Your task to perform on an android device: Search for "jbl charge 4" on walmart.com, select the first entry, and add it to the cart. Image 0: 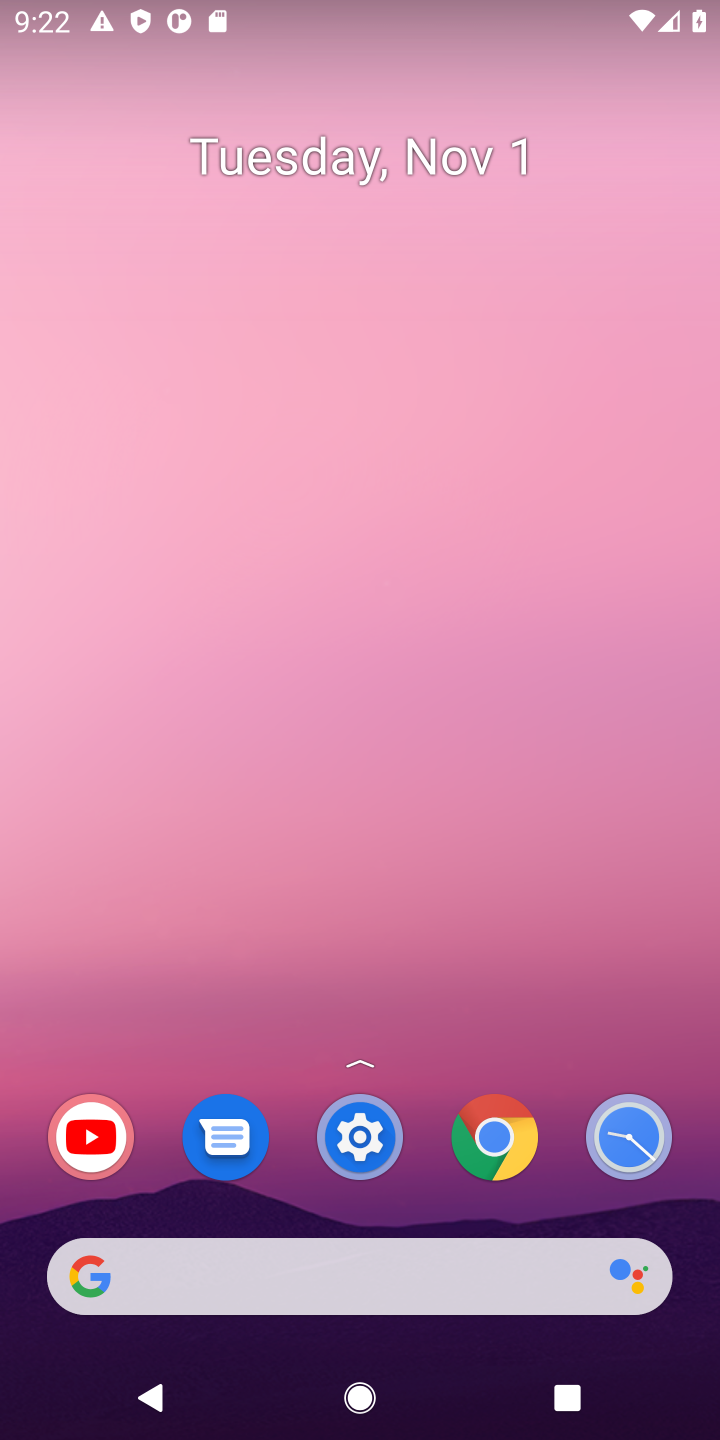
Step 0: click (492, 1153)
Your task to perform on an android device: Search for "jbl charge 4" on walmart.com, select the first entry, and add it to the cart. Image 1: 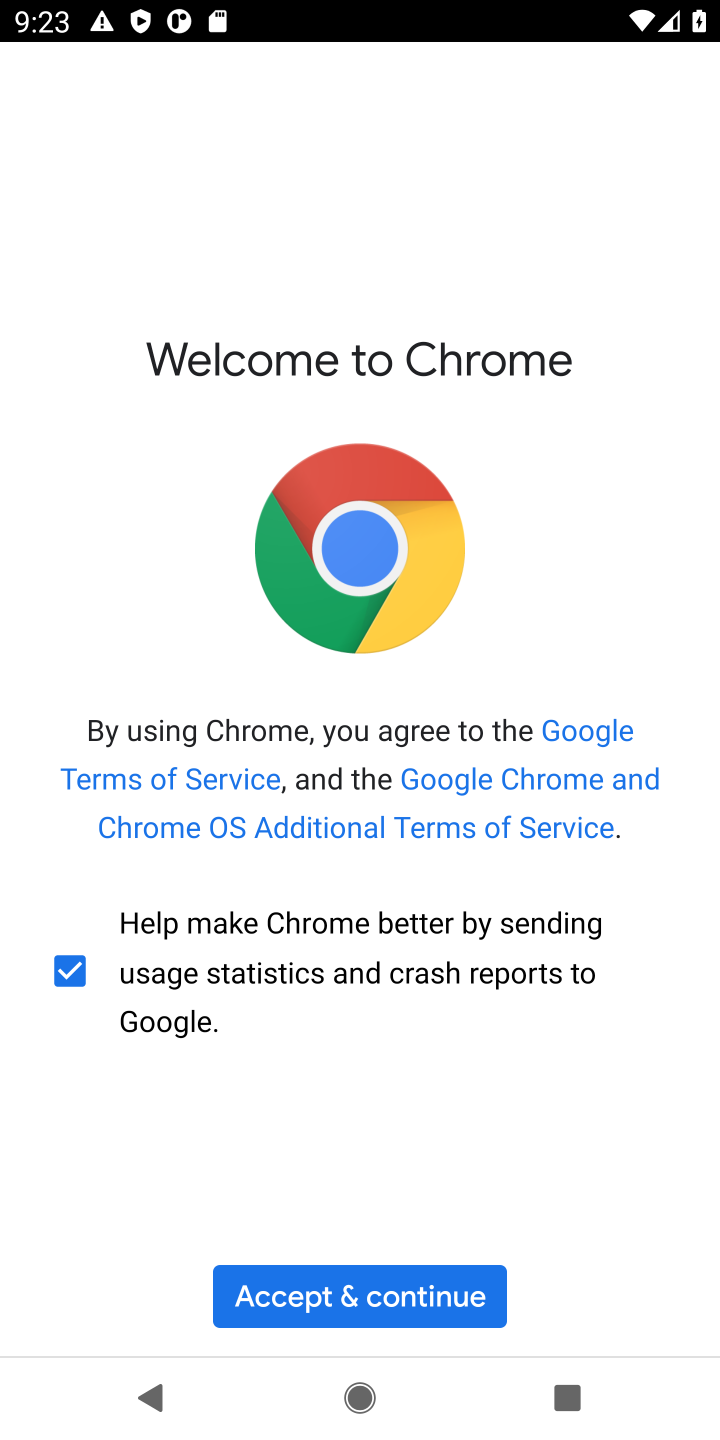
Step 1: click (436, 1281)
Your task to perform on an android device: Search for "jbl charge 4" on walmart.com, select the first entry, and add it to the cart. Image 2: 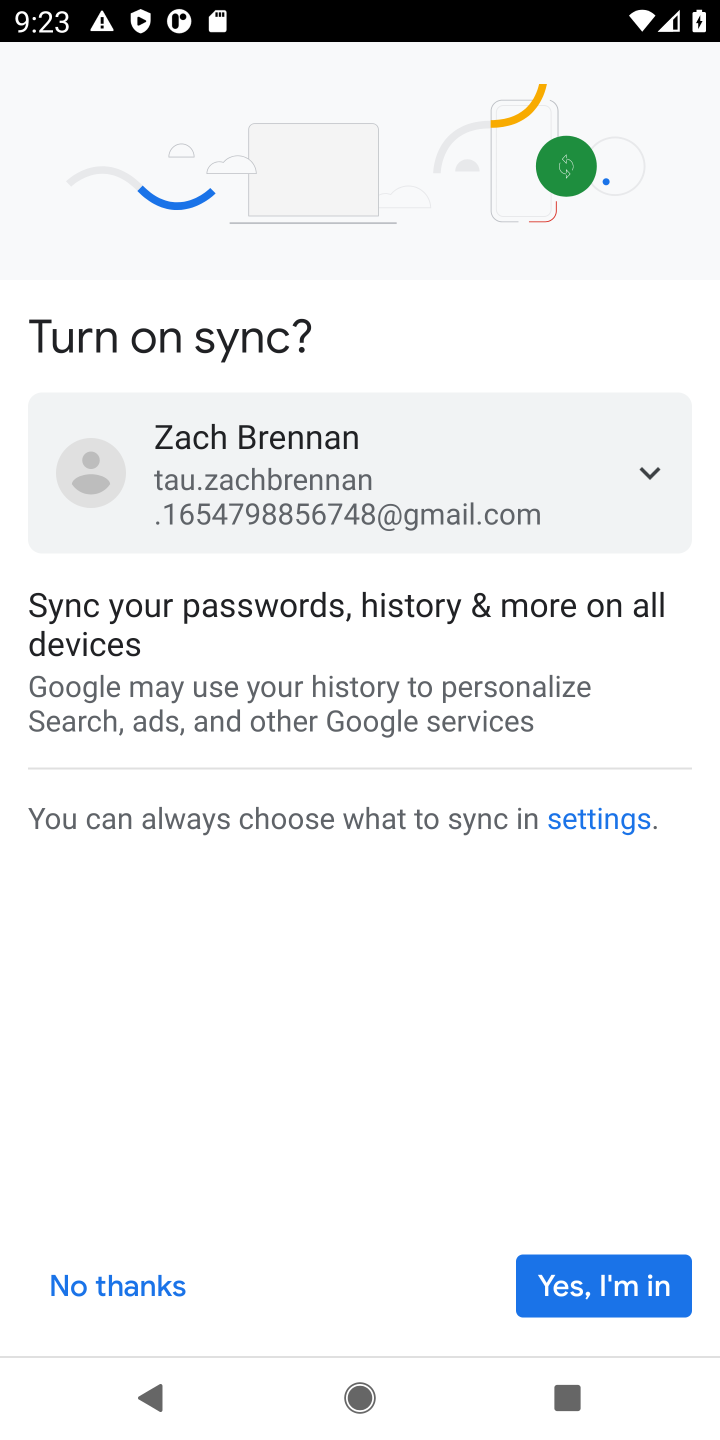
Step 2: click (676, 1272)
Your task to perform on an android device: Search for "jbl charge 4" on walmart.com, select the first entry, and add it to the cart. Image 3: 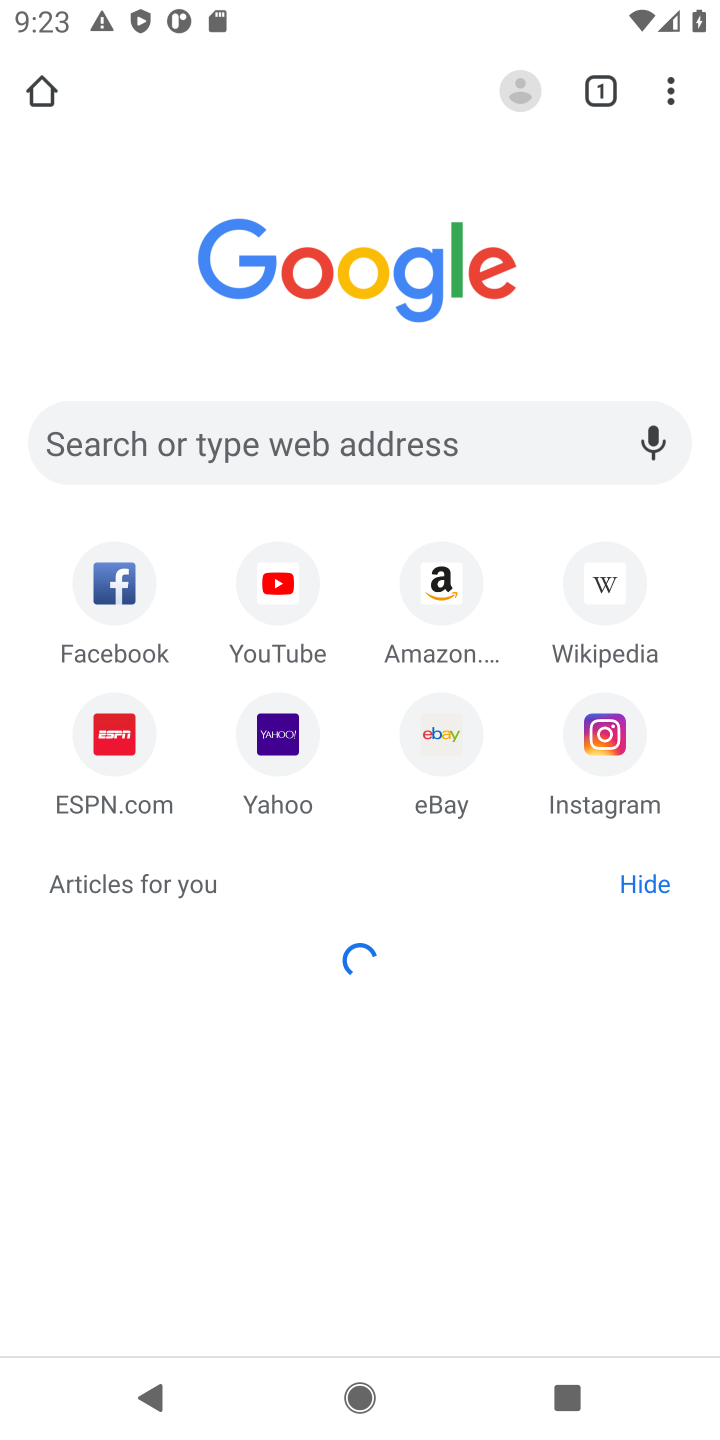
Step 3: click (444, 434)
Your task to perform on an android device: Search for "jbl charge 4" on walmart.com, select the first entry, and add it to the cart. Image 4: 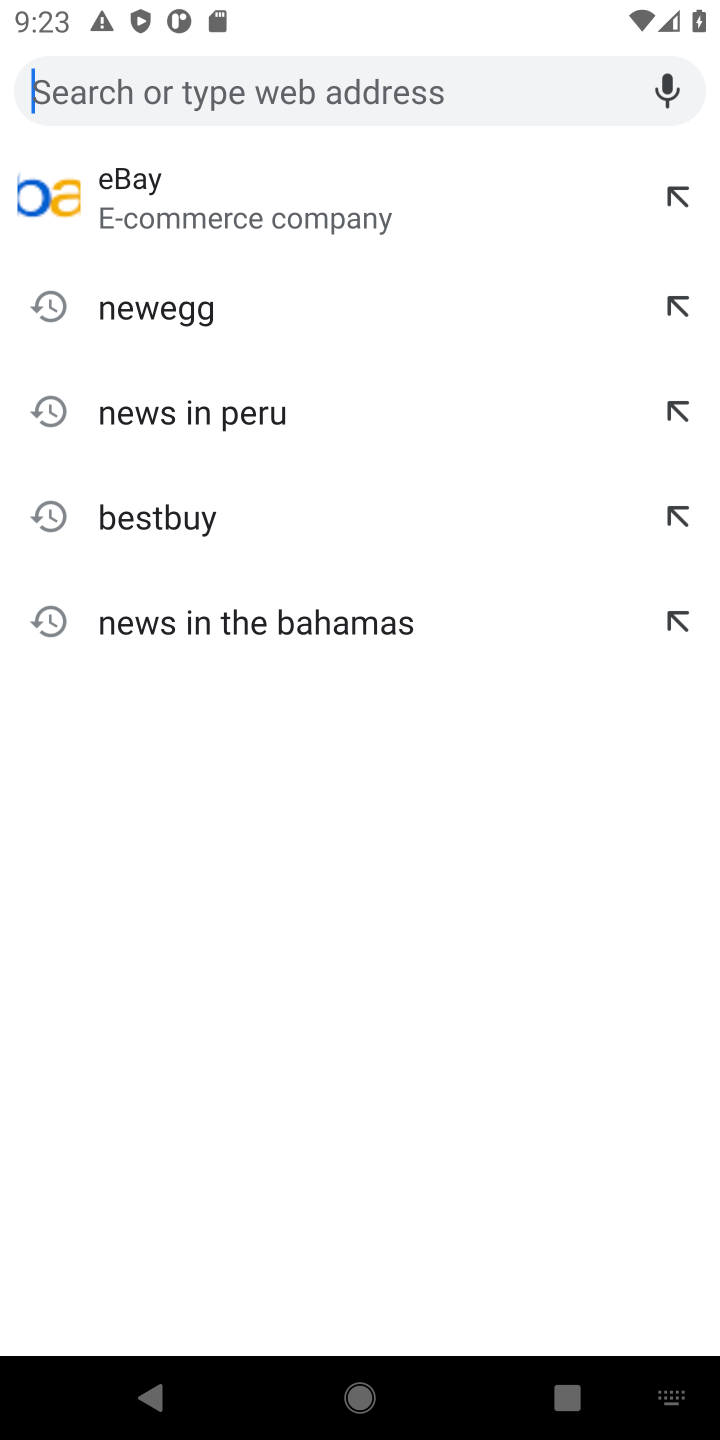
Step 4: type "walmart.com"
Your task to perform on an android device: Search for "jbl charge 4" on walmart.com, select the first entry, and add it to the cart. Image 5: 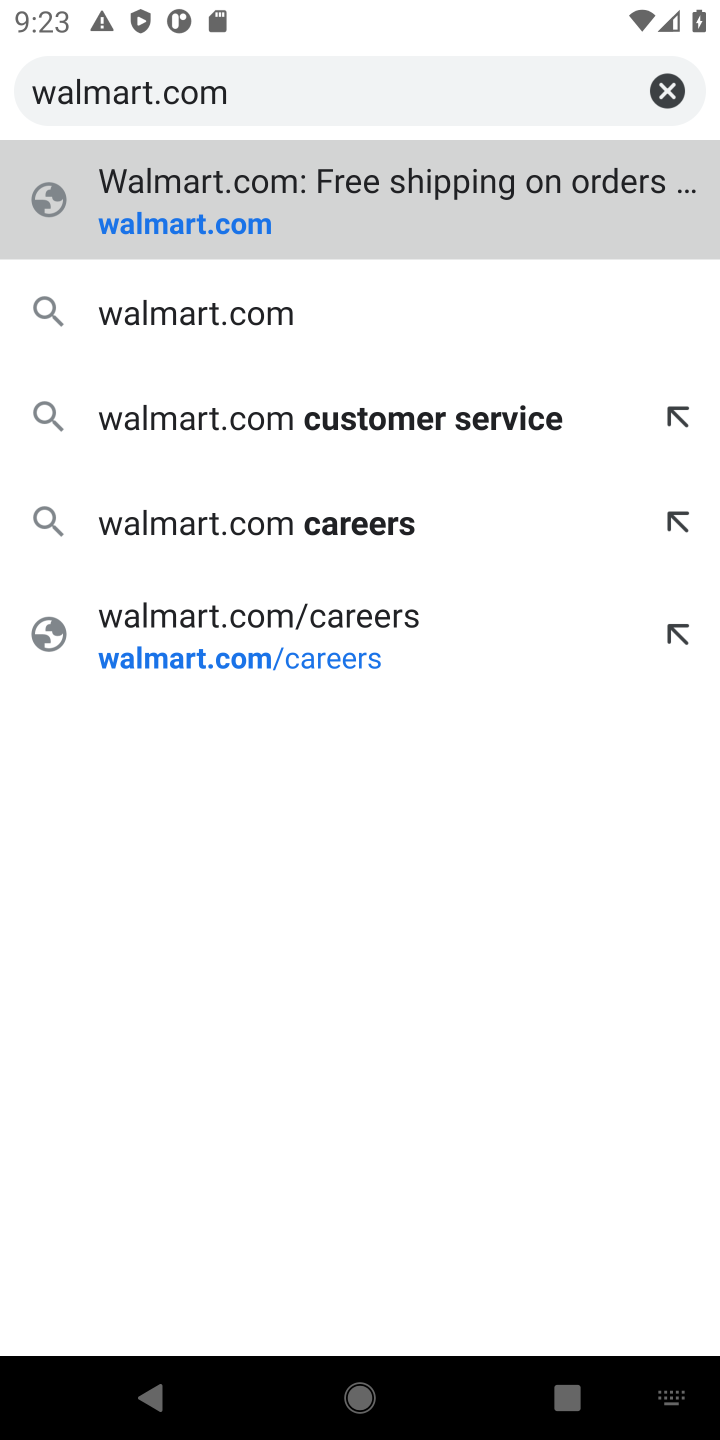
Step 5: press enter
Your task to perform on an android device: Search for "jbl charge 4" on walmart.com, select the first entry, and add it to the cart. Image 6: 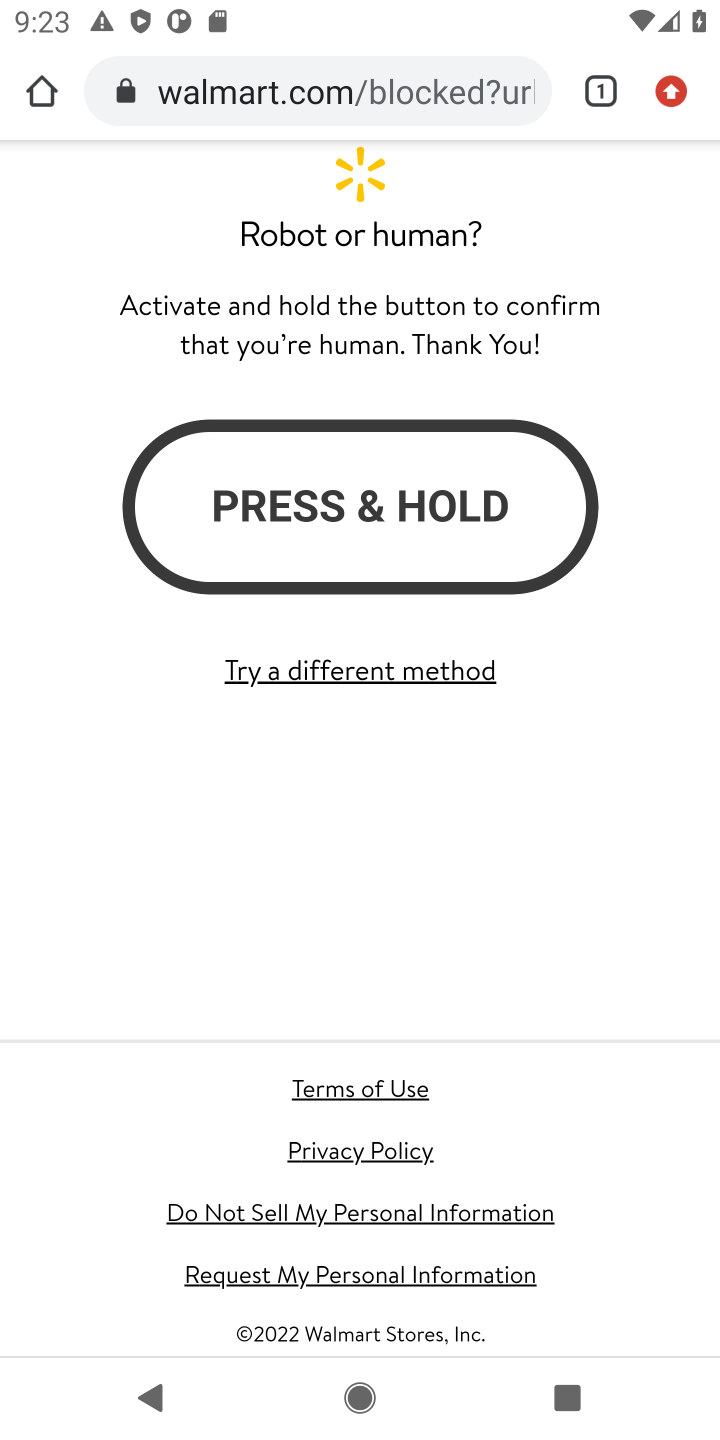
Step 6: click (449, 660)
Your task to perform on an android device: Search for "jbl charge 4" on walmart.com, select the first entry, and add it to the cart. Image 7: 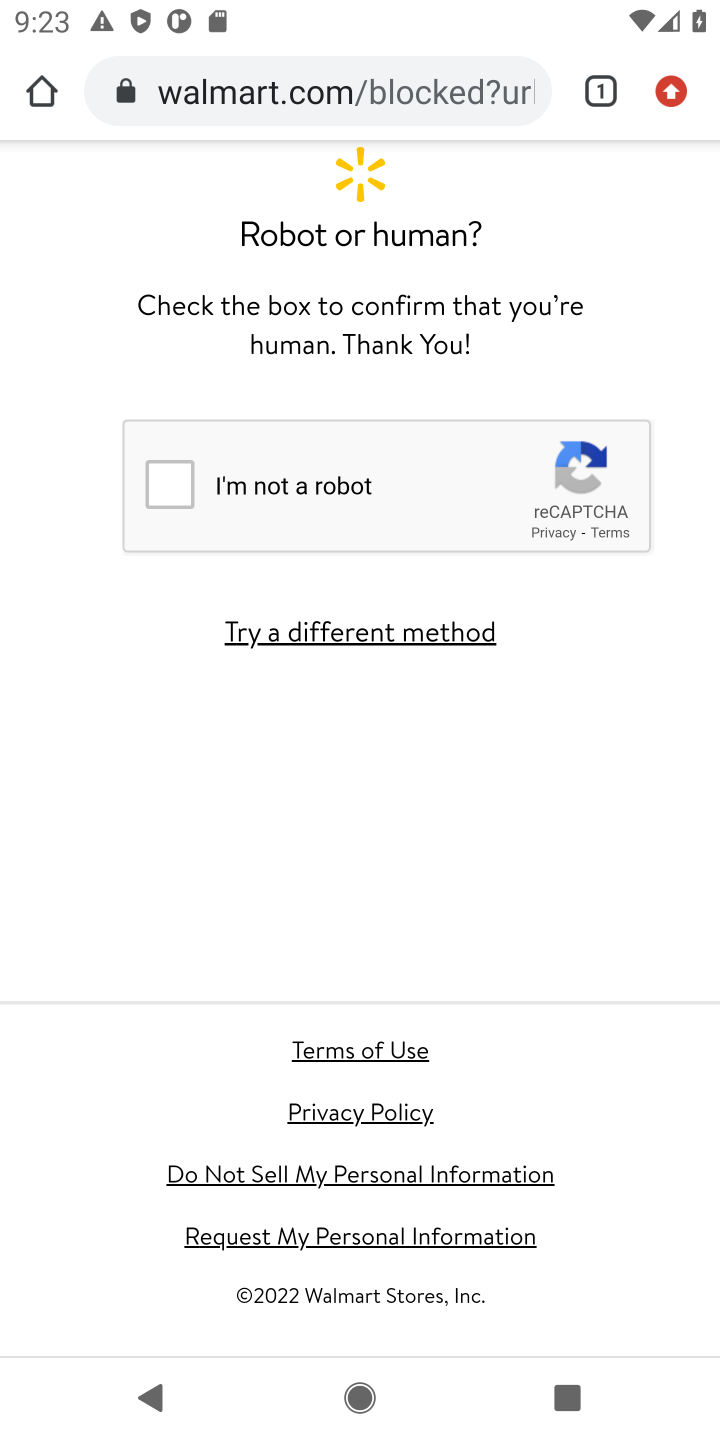
Step 7: click (180, 486)
Your task to perform on an android device: Search for "jbl charge 4" on walmart.com, select the first entry, and add it to the cart. Image 8: 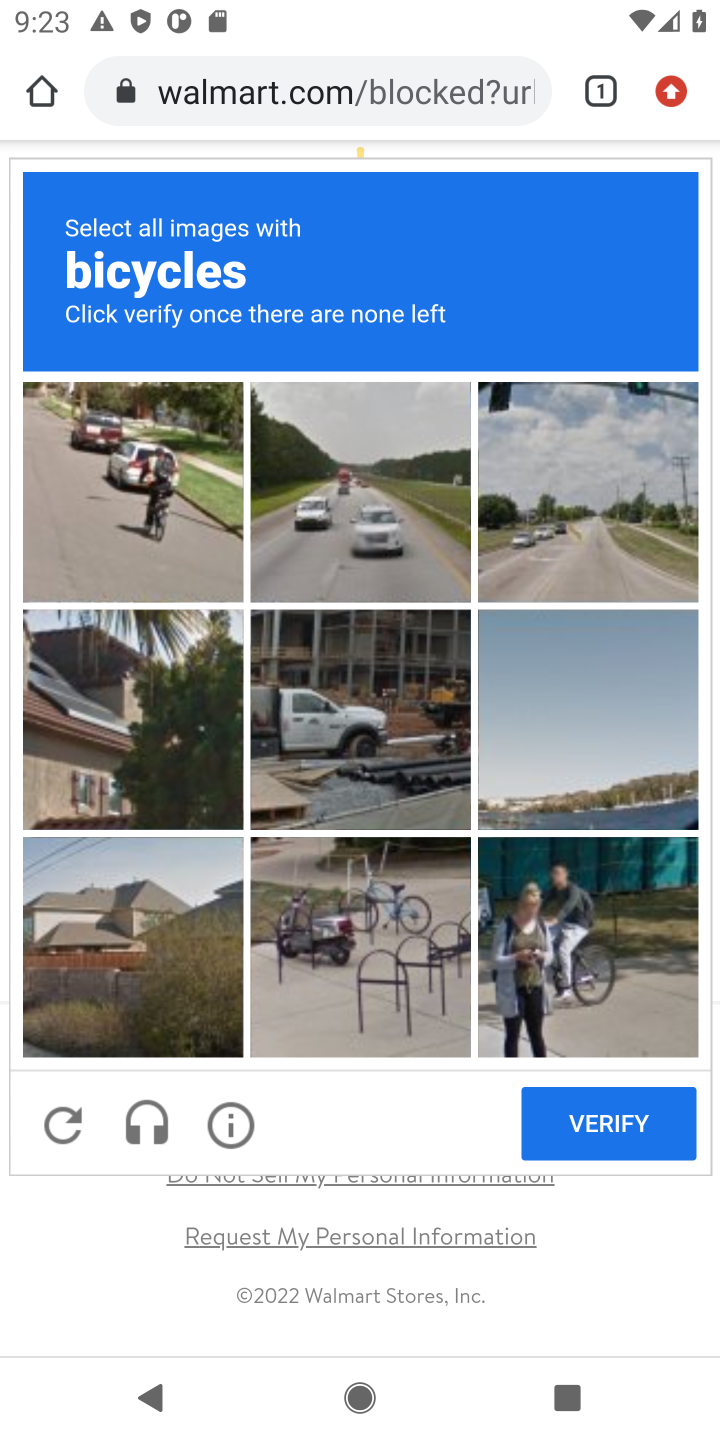
Step 8: click (167, 489)
Your task to perform on an android device: Search for "jbl charge 4" on walmart.com, select the first entry, and add it to the cart. Image 9: 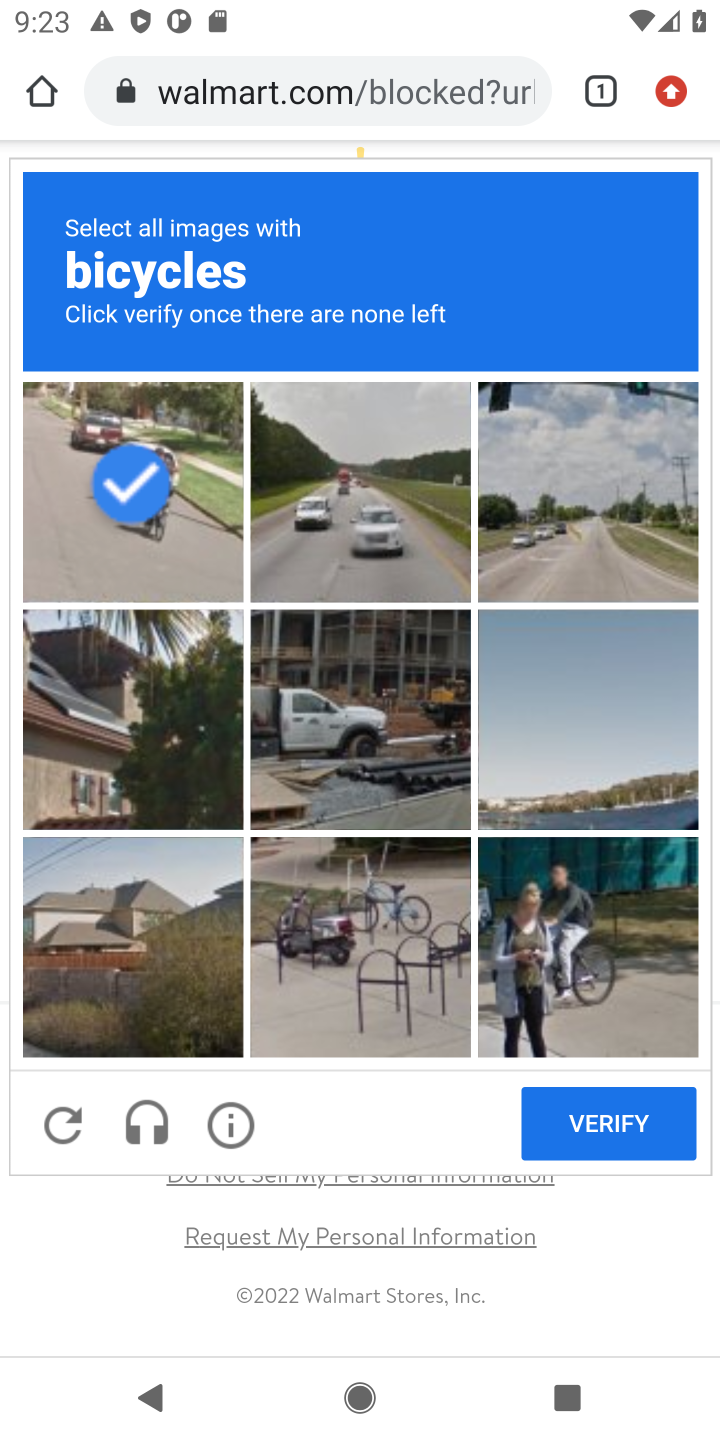
Step 9: click (404, 913)
Your task to perform on an android device: Search for "jbl charge 4" on walmart.com, select the first entry, and add it to the cart. Image 10: 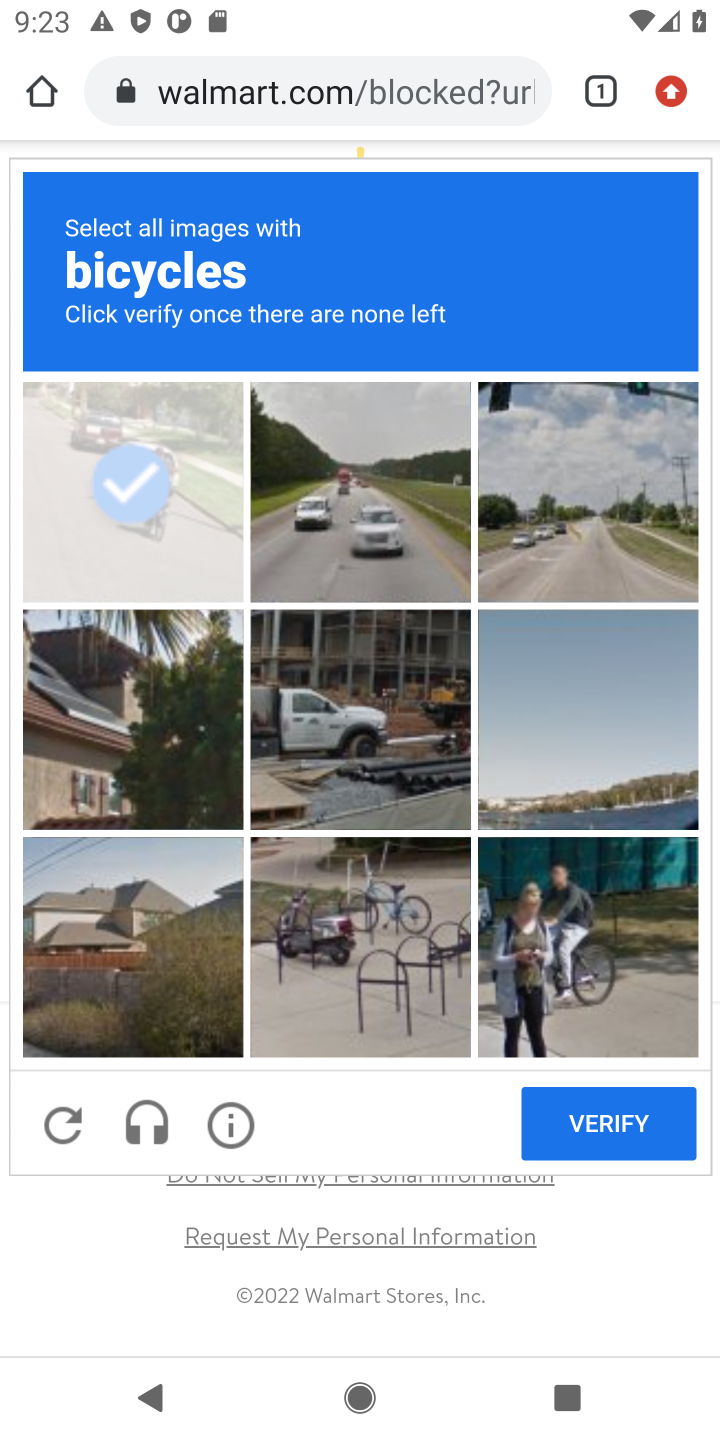
Step 10: click (663, 968)
Your task to perform on an android device: Search for "jbl charge 4" on walmart.com, select the first entry, and add it to the cart. Image 11: 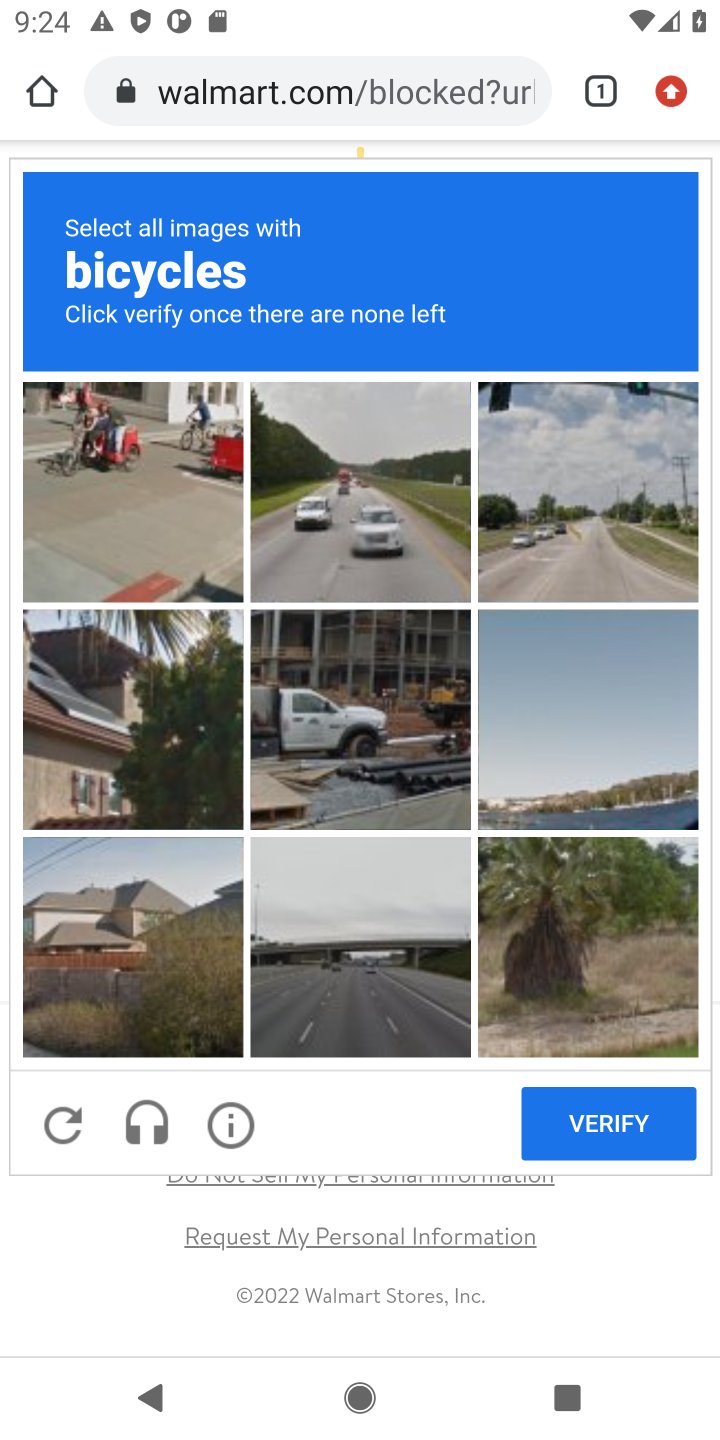
Step 11: click (126, 503)
Your task to perform on an android device: Search for "jbl charge 4" on walmart.com, select the first entry, and add it to the cart. Image 12: 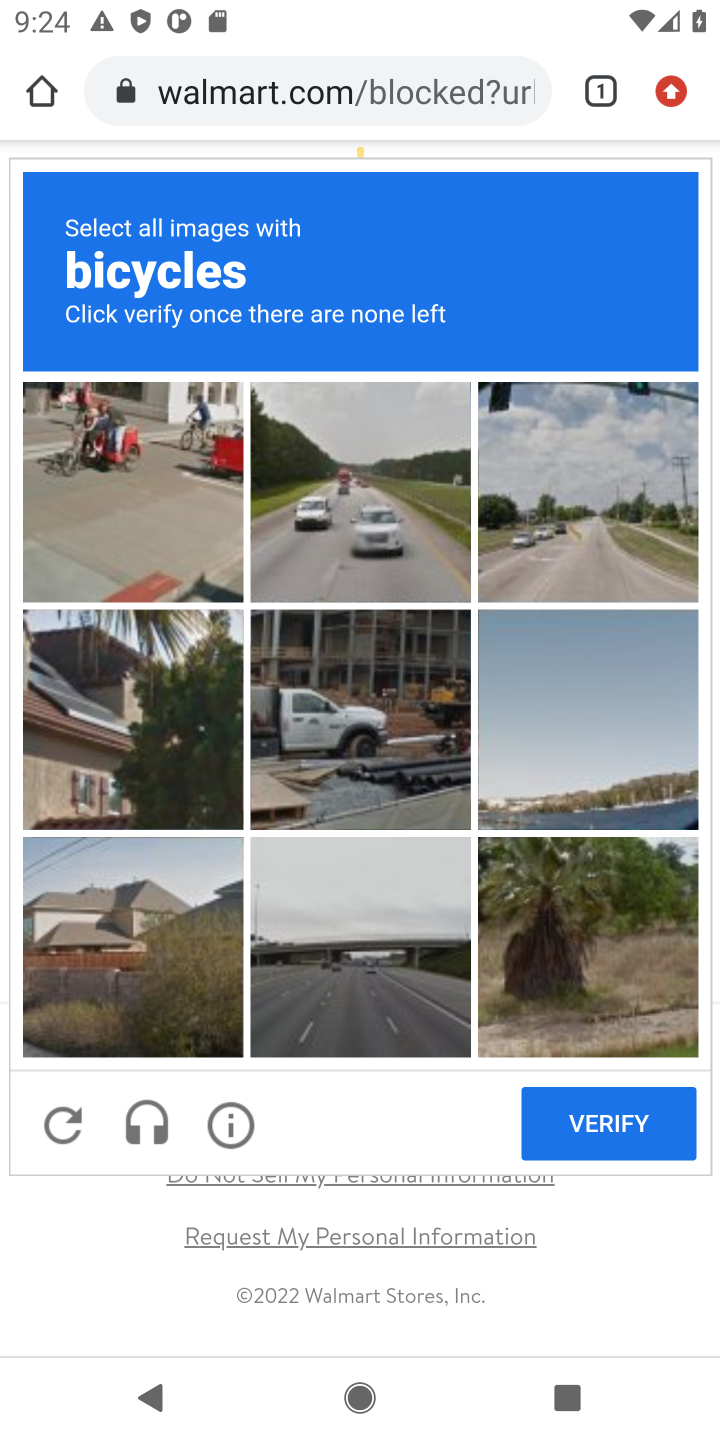
Step 12: click (417, 777)
Your task to perform on an android device: Search for "jbl charge 4" on walmart.com, select the first entry, and add it to the cart. Image 13: 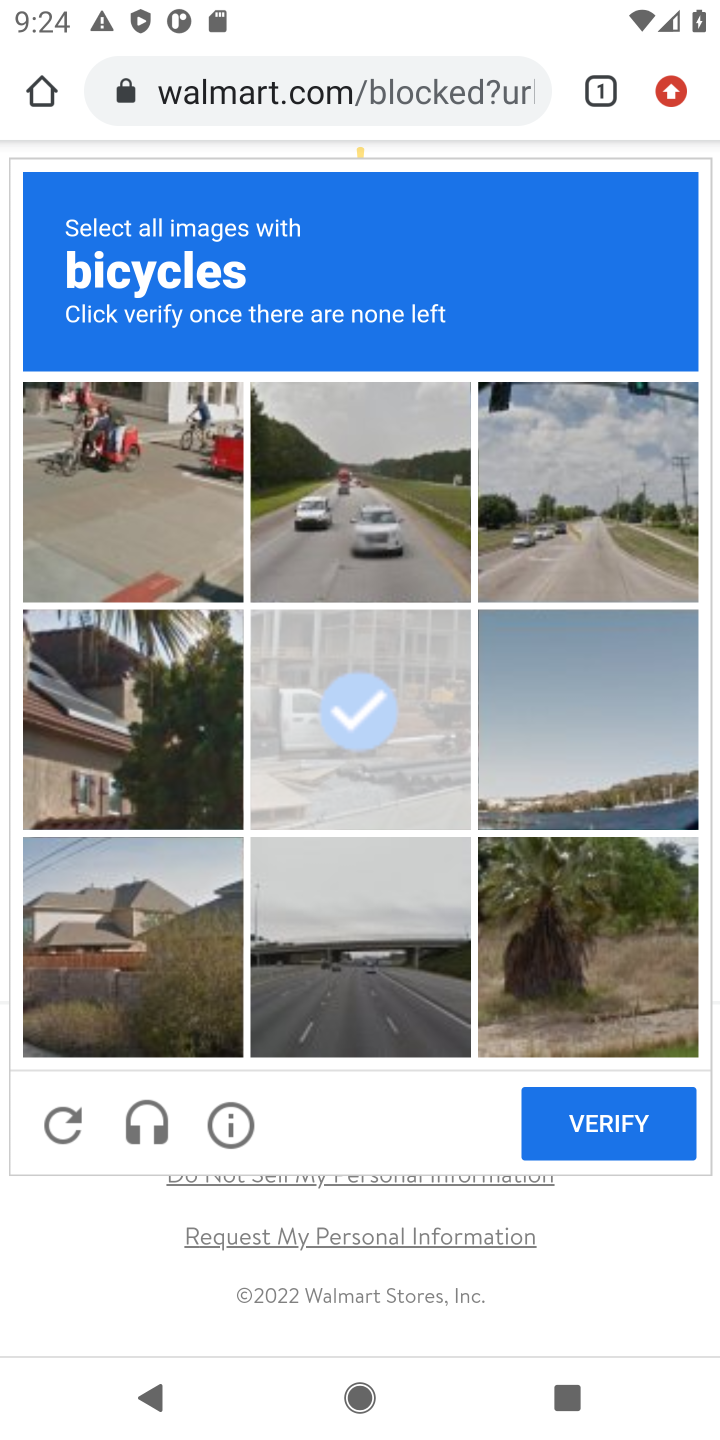
Step 13: click (640, 1128)
Your task to perform on an android device: Search for "jbl charge 4" on walmart.com, select the first entry, and add it to the cart. Image 14: 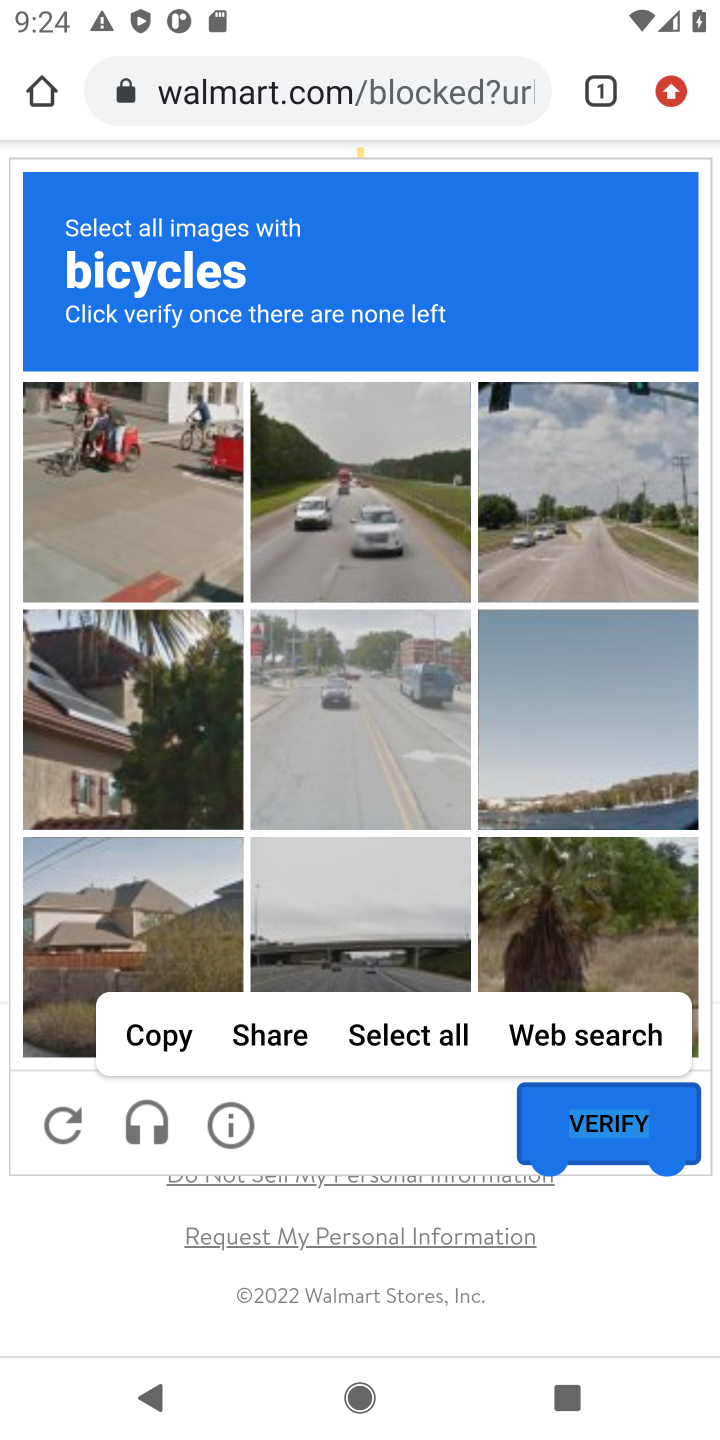
Step 14: click (413, 1119)
Your task to perform on an android device: Search for "jbl charge 4" on walmart.com, select the first entry, and add it to the cart. Image 15: 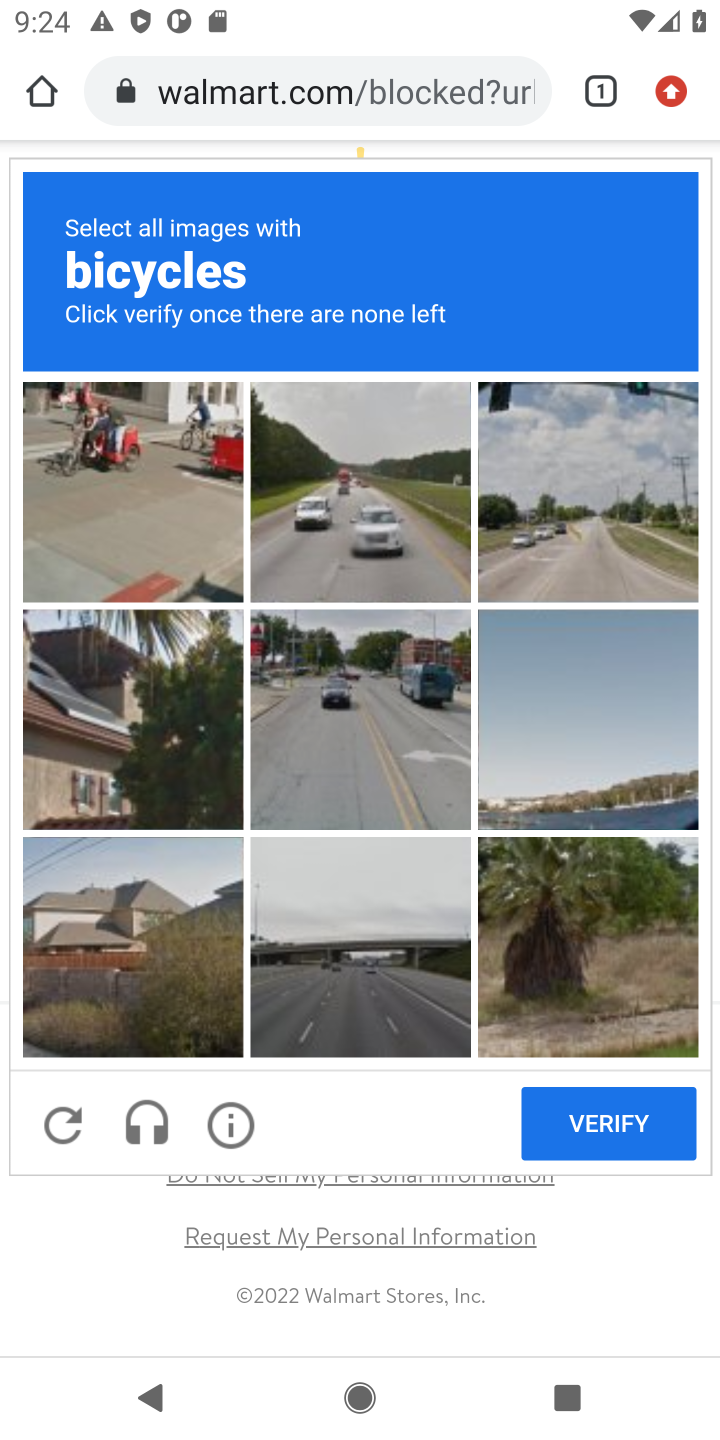
Step 15: click (635, 1122)
Your task to perform on an android device: Search for "jbl charge 4" on walmart.com, select the first entry, and add it to the cart. Image 16: 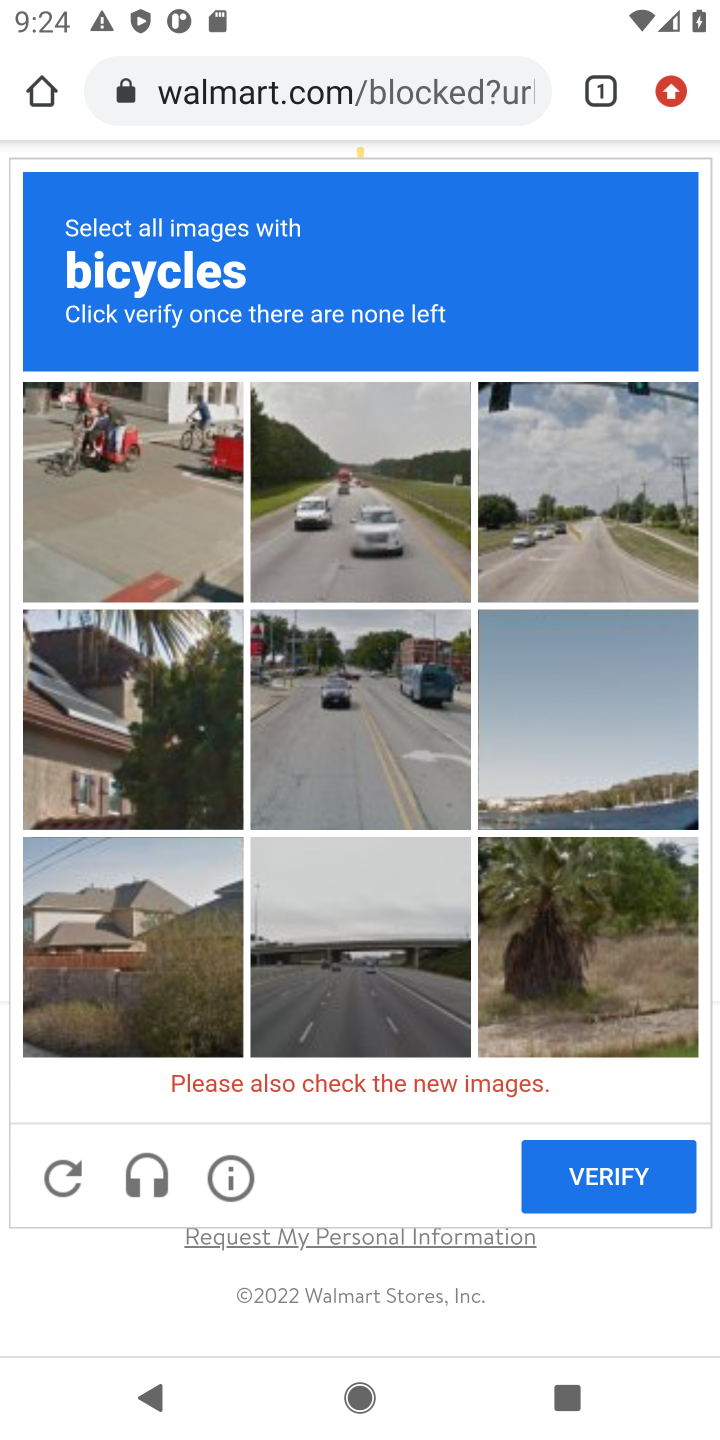
Step 16: click (435, 105)
Your task to perform on an android device: Search for "jbl charge 4" on walmart.com, select the first entry, and add it to the cart. Image 17: 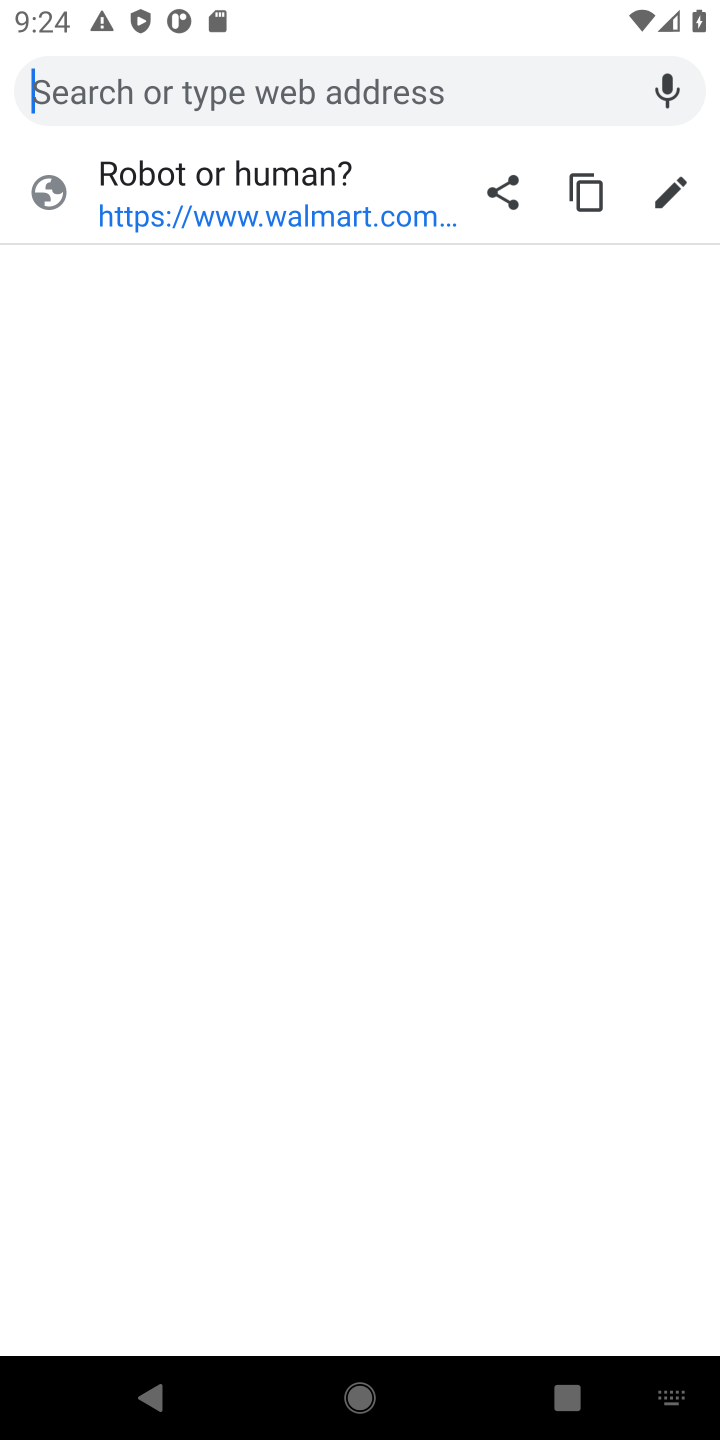
Step 17: type "walmart.com"
Your task to perform on an android device: Search for "jbl charge 4" on walmart.com, select the first entry, and add it to the cart. Image 18: 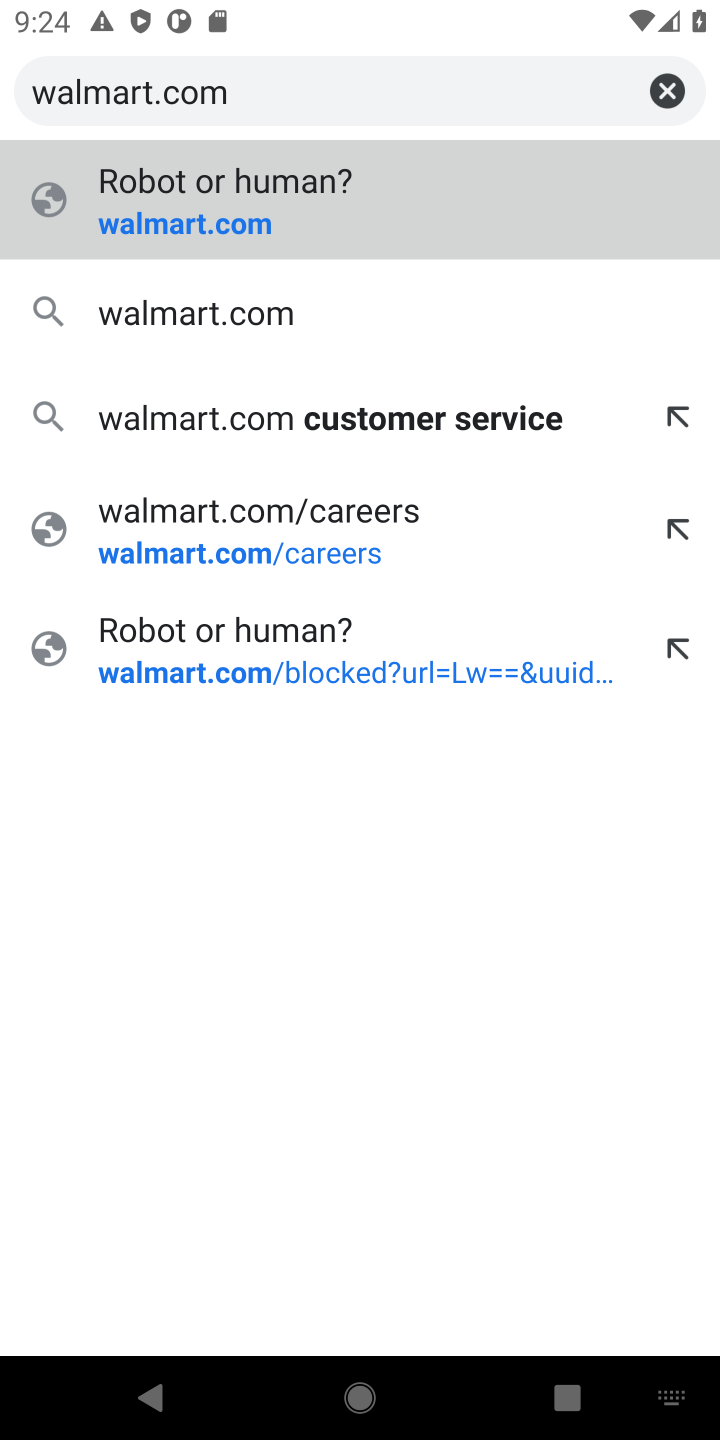
Step 18: click (304, 331)
Your task to perform on an android device: Search for "jbl charge 4" on walmart.com, select the first entry, and add it to the cart. Image 19: 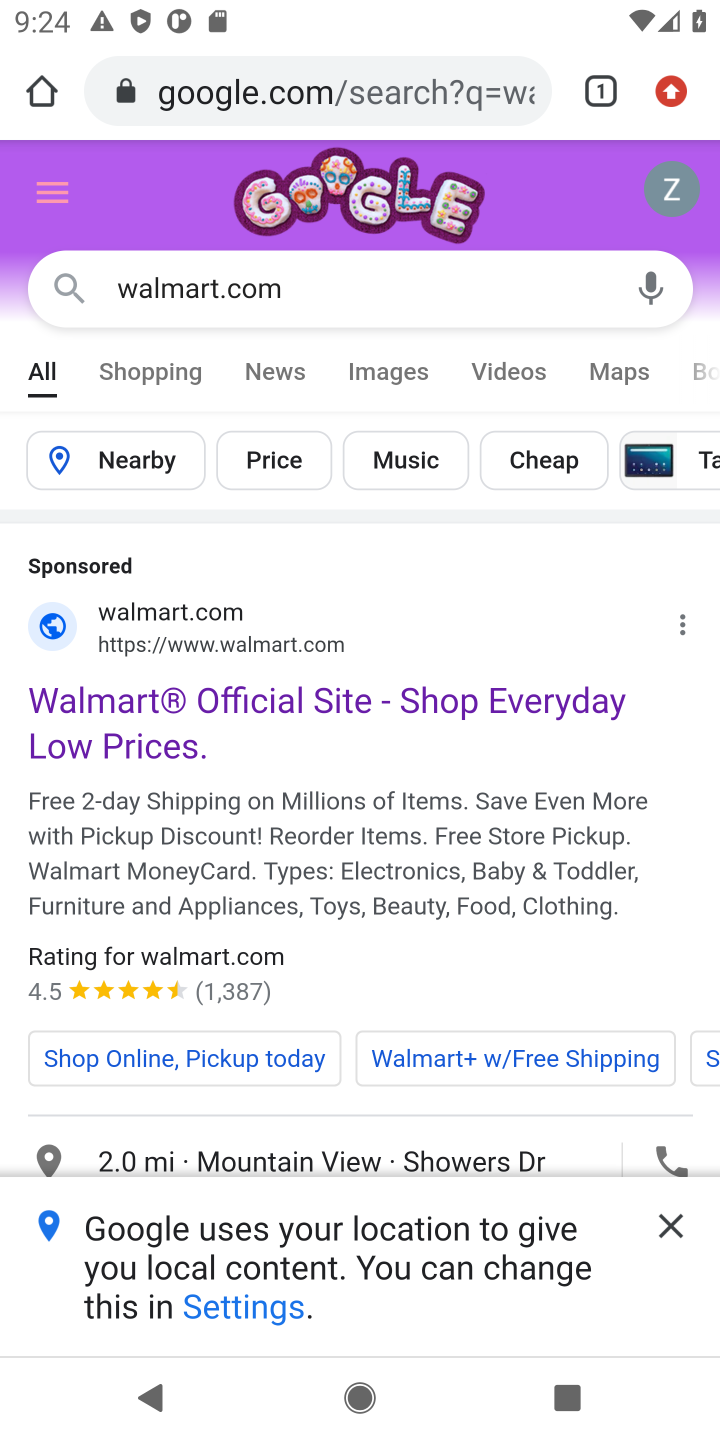
Step 19: drag from (361, 798) to (366, 372)
Your task to perform on an android device: Search for "jbl charge 4" on walmart.com, select the first entry, and add it to the cart. Image 20: 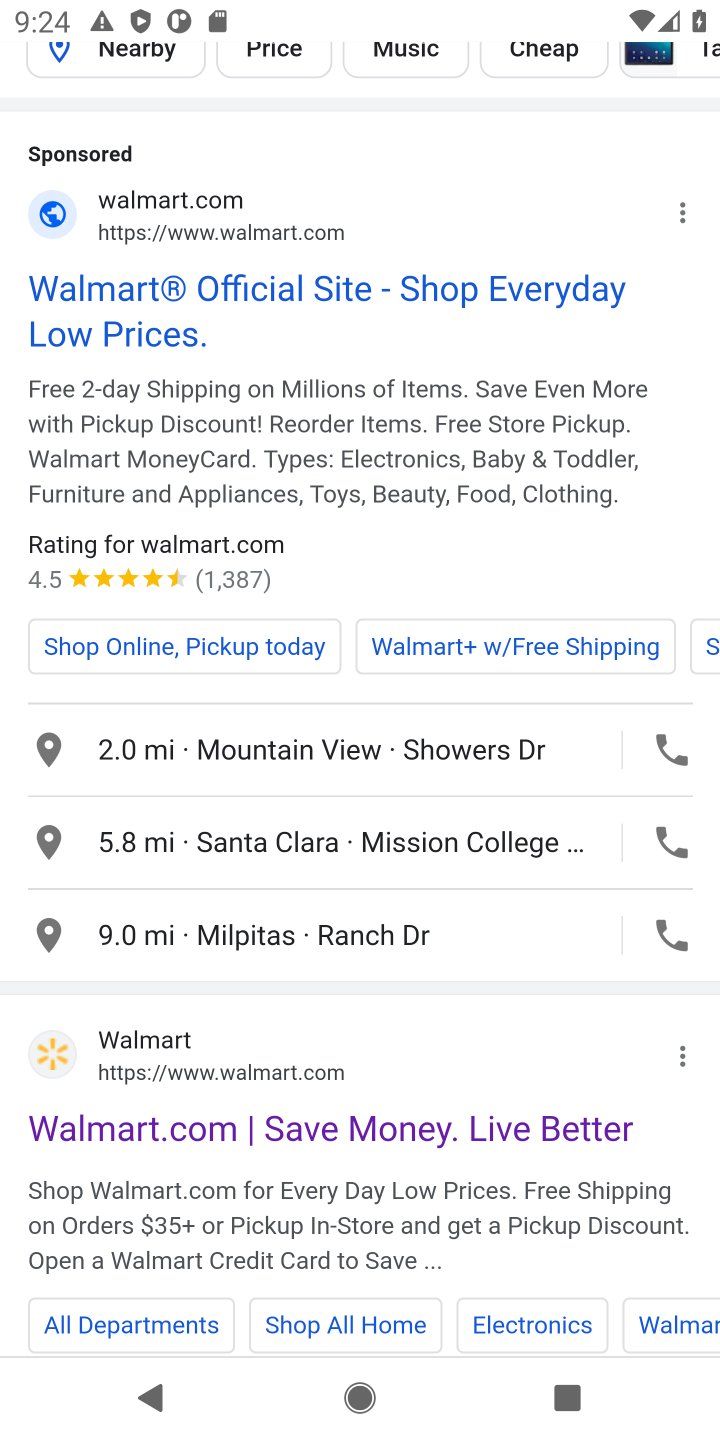
Step 20: drag from (340, 927) to (309, 568)
Your task to perform on an android device: Search for "jbl charge 4" on walmart.com, select the first entry, and add it to the cart. Image 21: 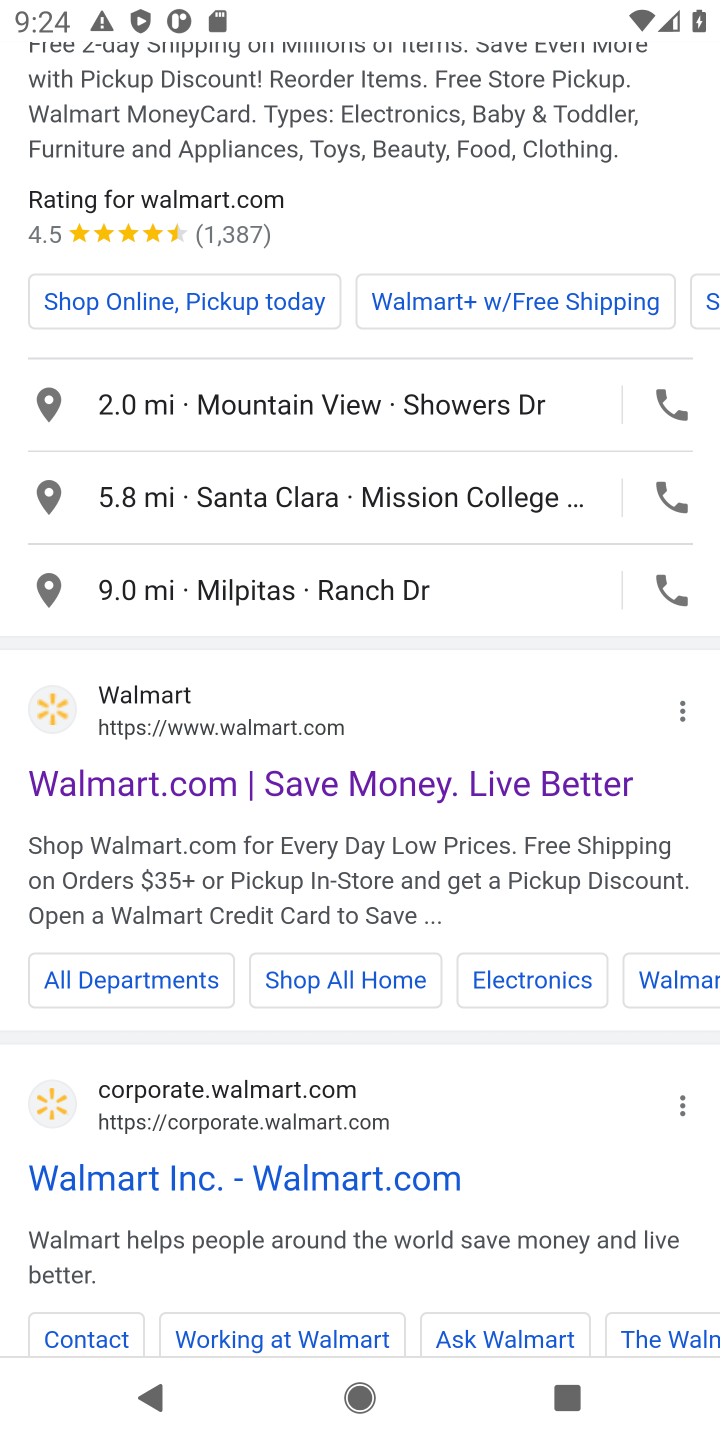
Step 21: click (213, 1098)
Your task to perform on an android device: Search for "jbl charge 4" on walmart.com, select the first entry, and add it to the cart. Image 22: 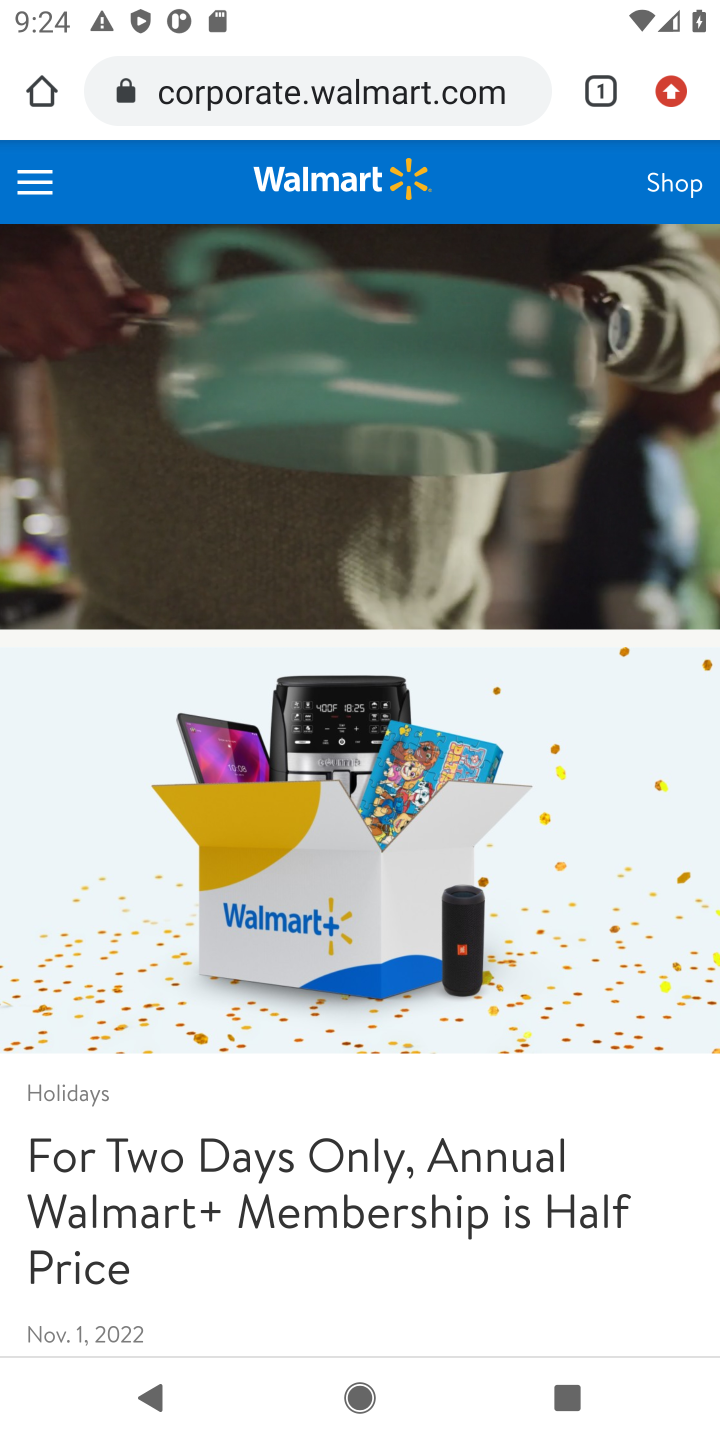
Step 22: task complete